Your task to perform on an android device: change the clock display to analog Image 0: 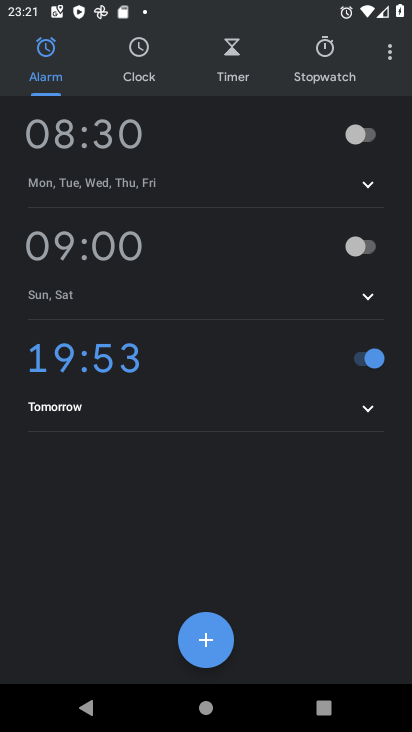
Step 0: click (384, 48)
Your task to perform on an android device: change the clock display to analog Image 1: 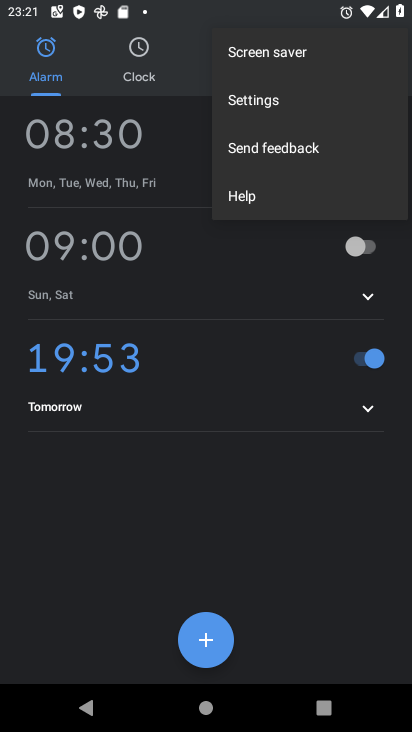
Step 1: click (283, 105)
Your task to perform on an android device: change the clock display to analog Image 2: 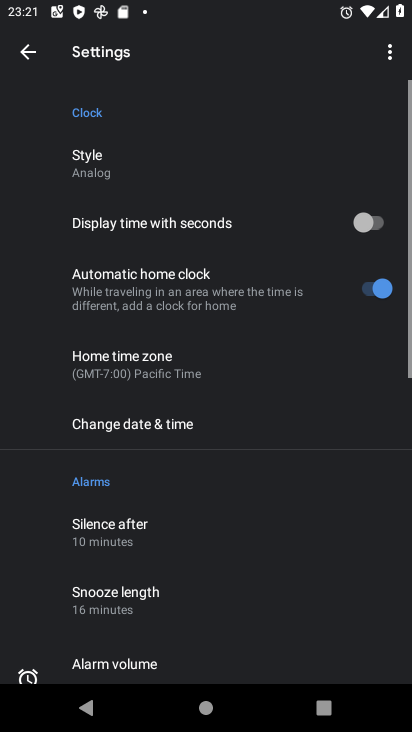
Step 2: click (191, 163)
Your task to perform on an android device: change the clock display to analog Image 3: 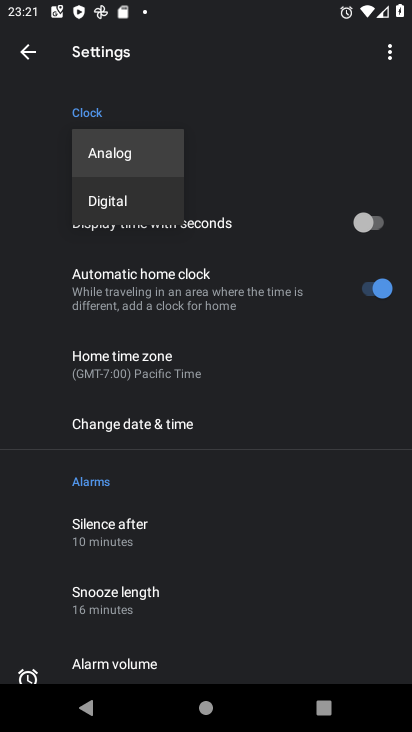
Step 3: task complete